Your task to perform on an android device: turn on data saver in the chrome app Image 0: 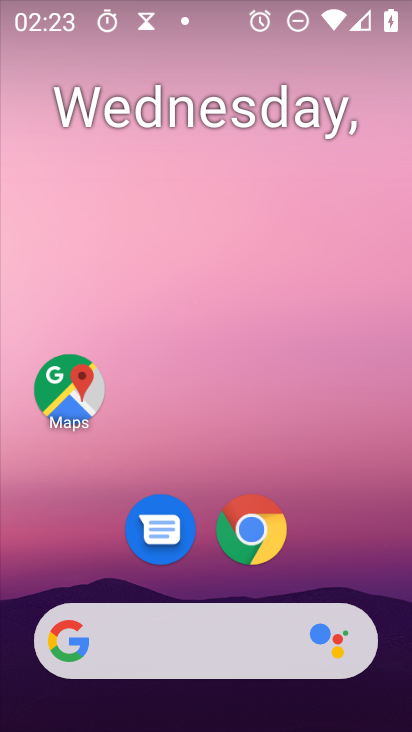
Step 0: drag from (320, 589) to (351, 68)
Your task to perform on an android device: turn on data saver in the chrome app Image 1: 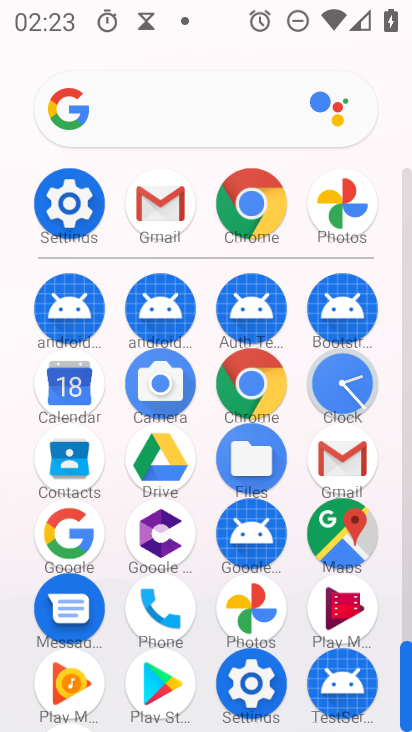
Step 1: click (242, 389)
Your task to perform on an android device: turn on data saver in the chrome app Image 2: 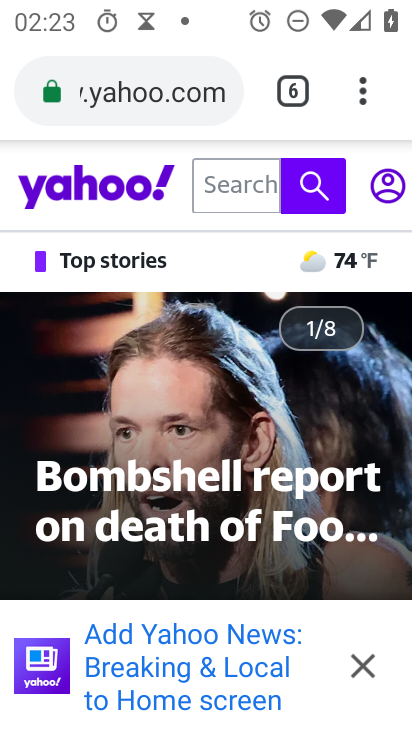
Step 2: click (359, 94)
Your task to perform on an android device: turn on data saver in the chrome app Image 3: 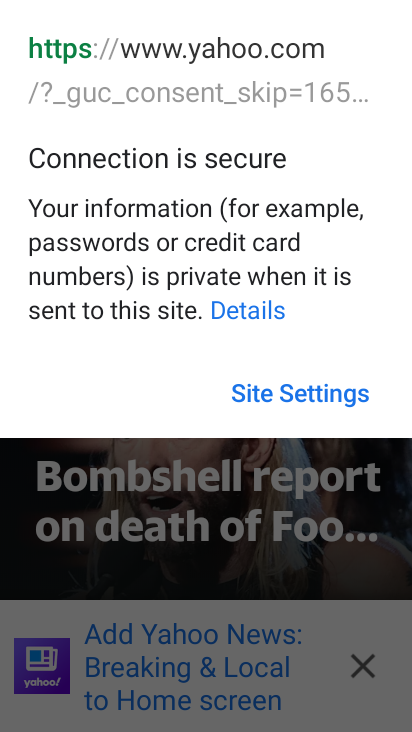
Step 3: press back button
Your task to perform on an android device: turn on data saver in the chrome app Image 4: 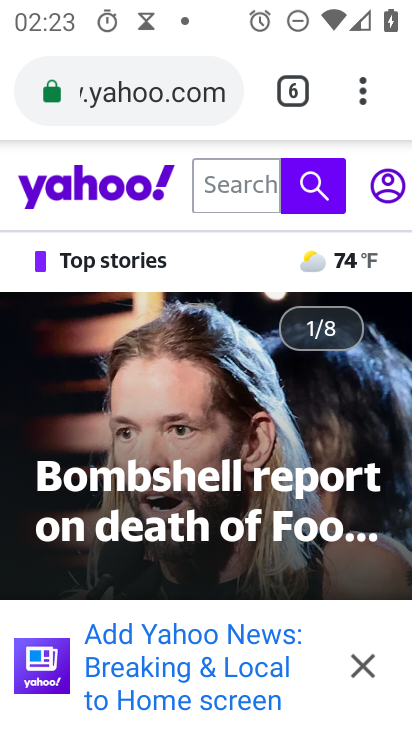
Step 4: click (356, 99)
Your task to perform on an android device: turn on data saver in the chrome app Image 5: 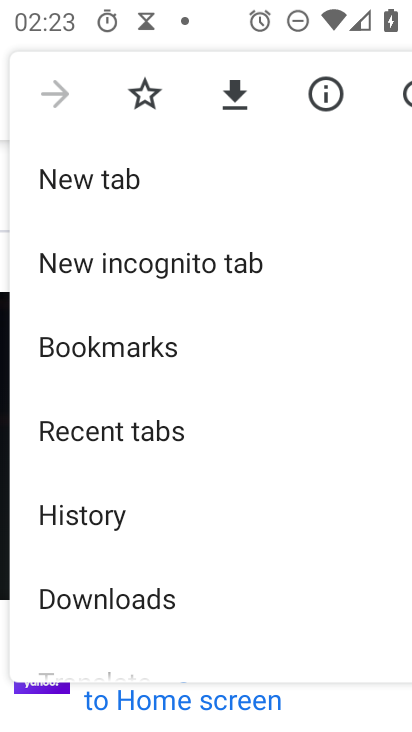
Step 5: drag from (267, 612) to (294, 20)
Your task to perform on an android device: turn on data saver in the chrome app Image 6: 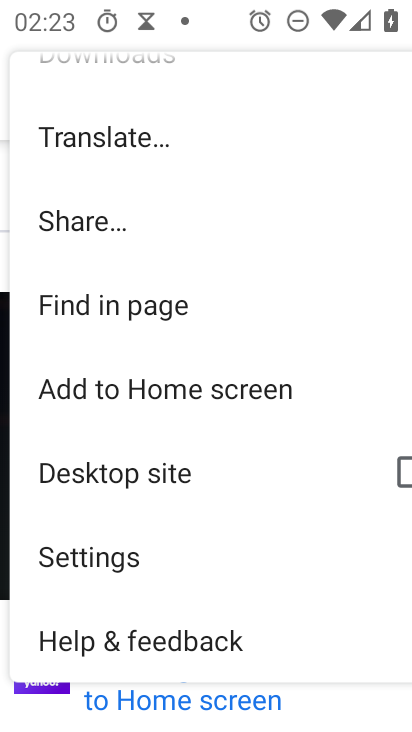
Step 6: click (142, 557)
Your task to perform on an android device: turn on data saver in the chrome app Image 7: 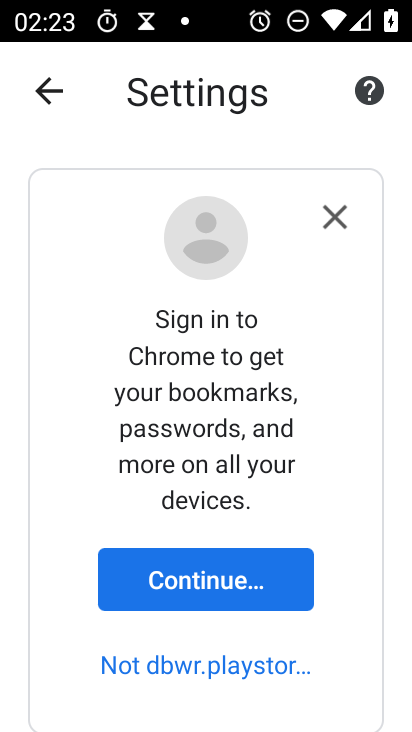
Step 7: drag from (184, 696) to (197, 142)
Your task to perform on an android device: turn on data saver in the chrome app Image 8: 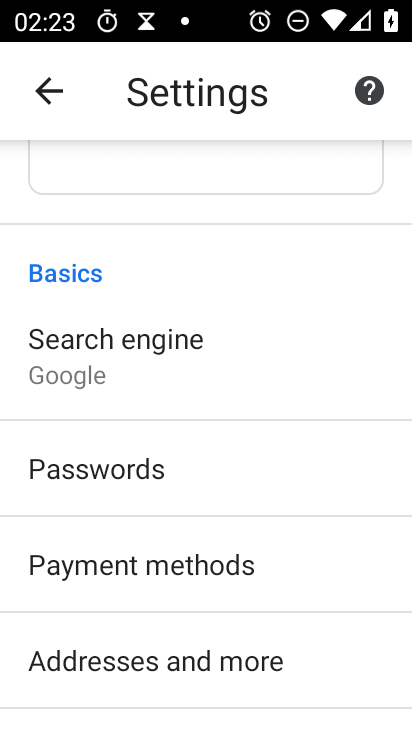
Step 8: drag from (276, 684) to (279, 92)
Your task to perform on an android device: turn on data saver in the chrome app Image 9: 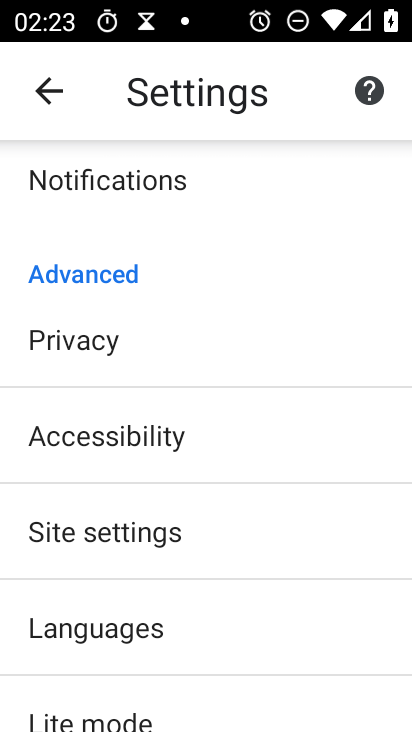
Step 9: drag from (157, 673) to (189, 301)
Your task to perform on an android device: turn on data saver in the chrome app Image 10: 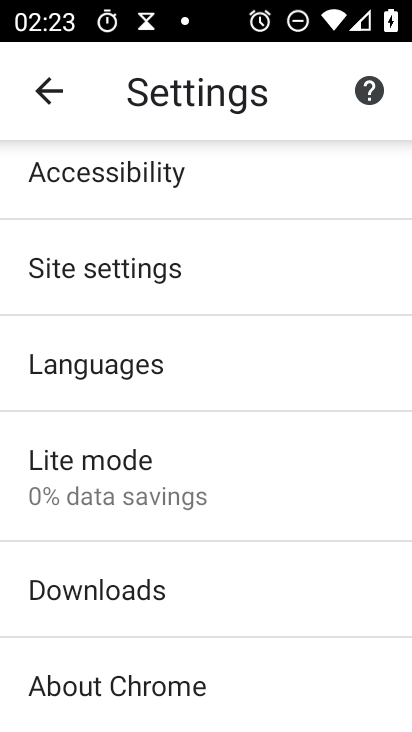
Step 10: click (143, 474)
Your task to perform on an android device: turn on data saver in the chrome app Image 11: 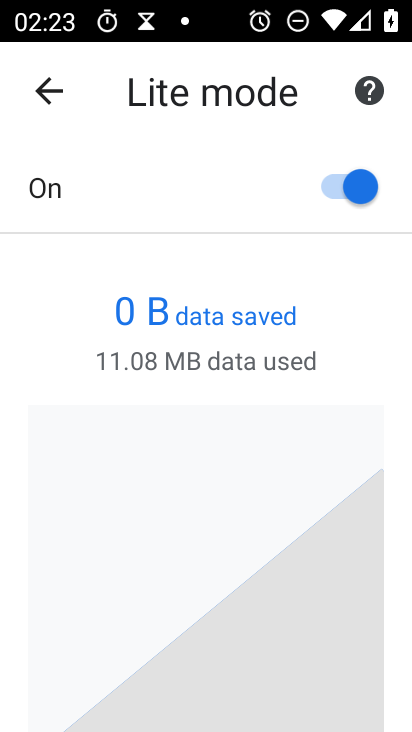
Step 11: task complete